Your task to perform on an android device: open app "Google Keep" (install if not already installed) Image 0: 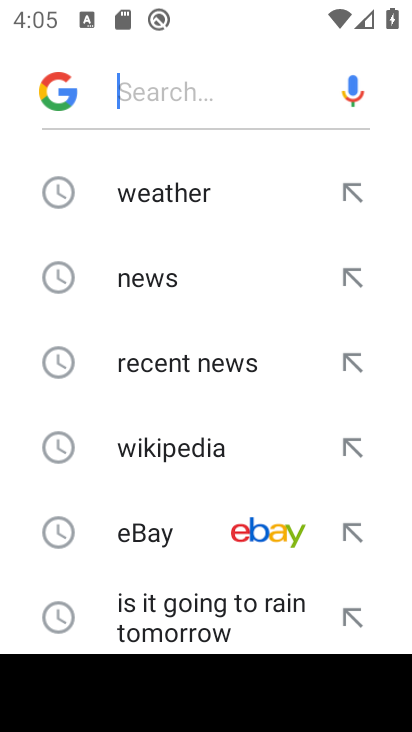
Step 0: press home button
Your task to perform on an android device: open app "Google Keep" (install if not already installed) Image 1: 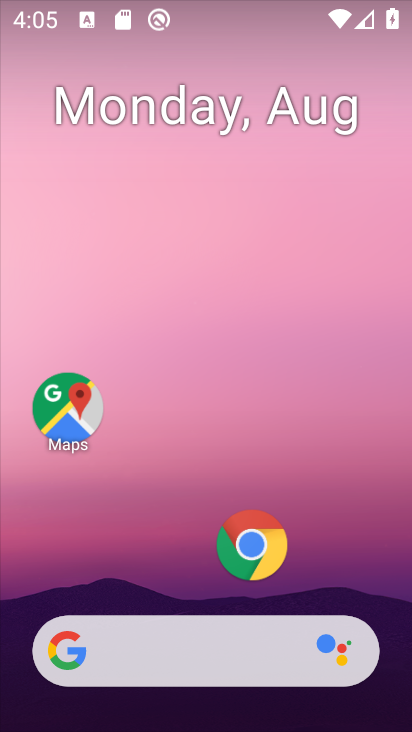
Step 1: drag from (130, 561) to (218, 18)
Your task to perform on an android device: open app "Google Keep" (install if not already installed) Image 2: 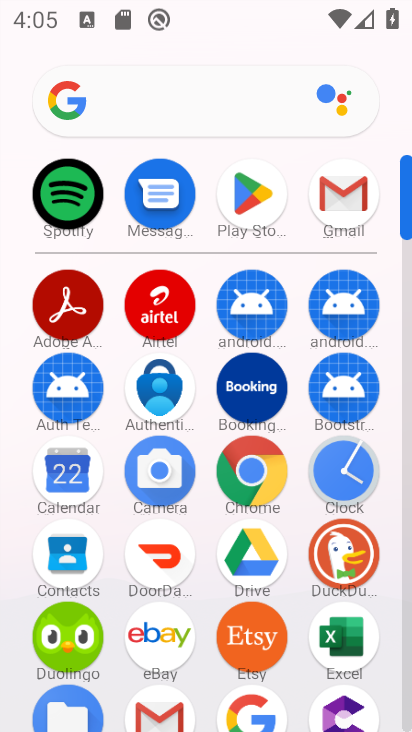
Step 2: click (252, 193)
Your task to perform on an android device: open app "Google Keep" (install if not already installed) Image 3: 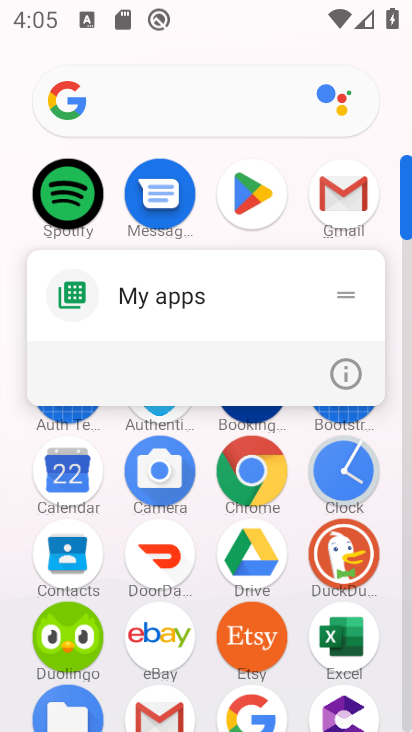
Step 3: click (252, 195)
Your task to perform on an android device: open app "Google Keep" (install if not already installed) Image 4: 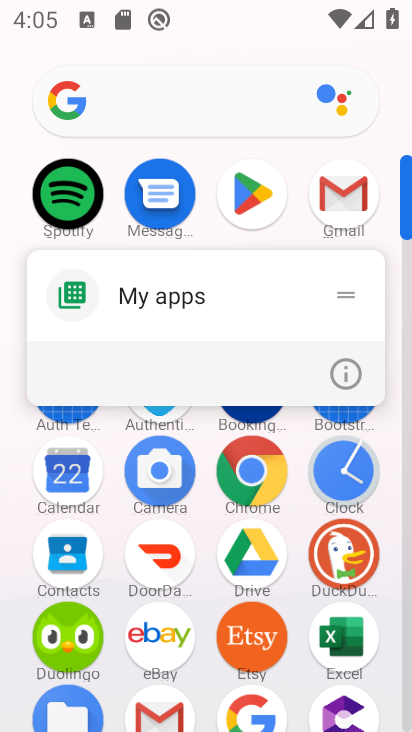
Step 4: click (254, 195)
Your task to perform on an android device: open app "Google Keep" (install if not already installed) Image 5: 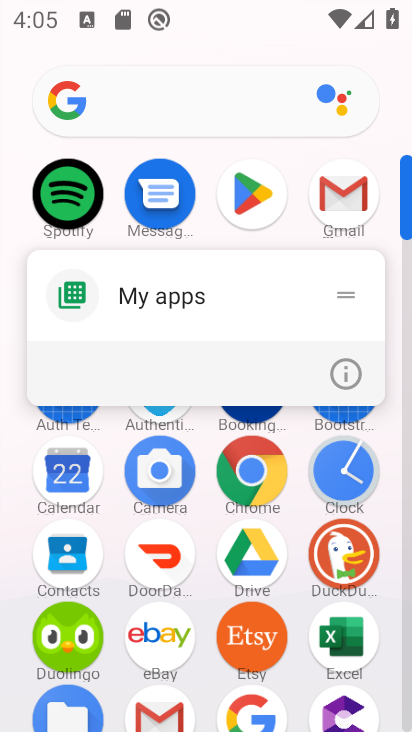
Step 5: click (253, 188)
Your task to perform on an android device: open app "Google Keep" (install if not already installed) Image 6: 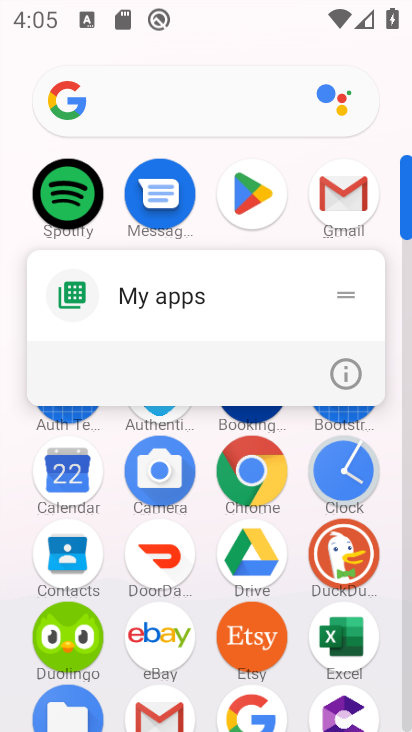
Step 6: click (254, 198)
Your task to perform on an android device: open app "Google Keep" (install if not already installed) Image 7: 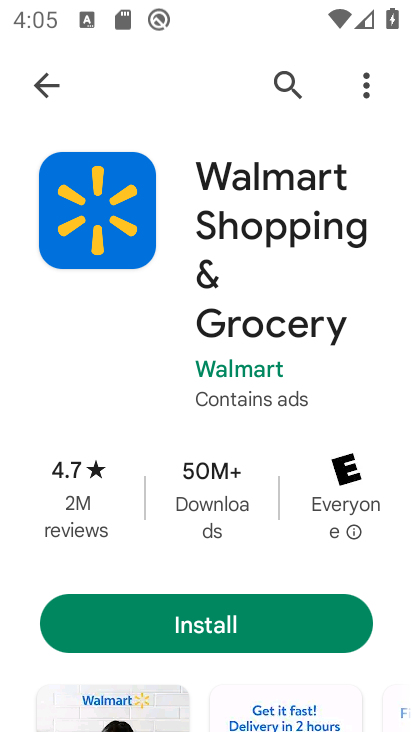
Step 7: click (275, 100)
Your task to perform on an android device: open app "Google Keep" (install if not already installed) Image 8: 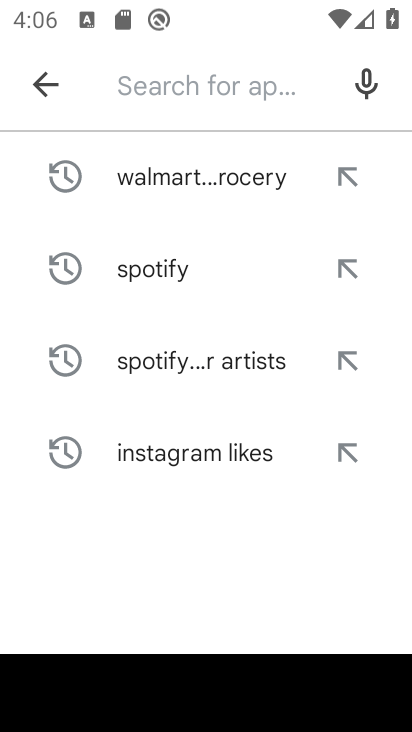
Step 8: click (189, 71)
Your task to perform on an android device: open app "Google Keep" (install if not already installed) Image 9: 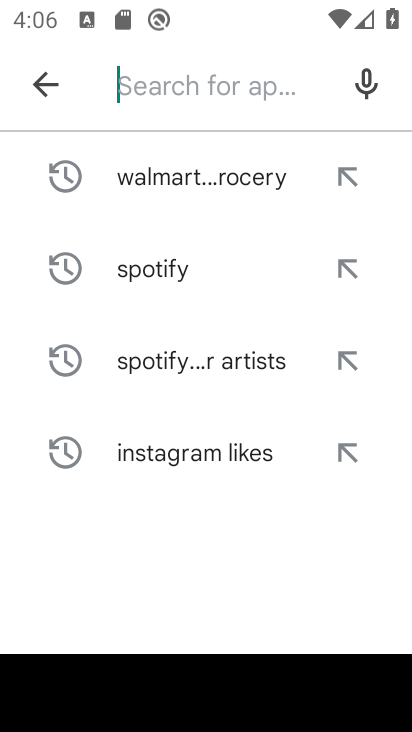
Step 9: click (265, 572)
Your task to perform on an android device: open app "Google Keep" (install if not already installed) Image 10: 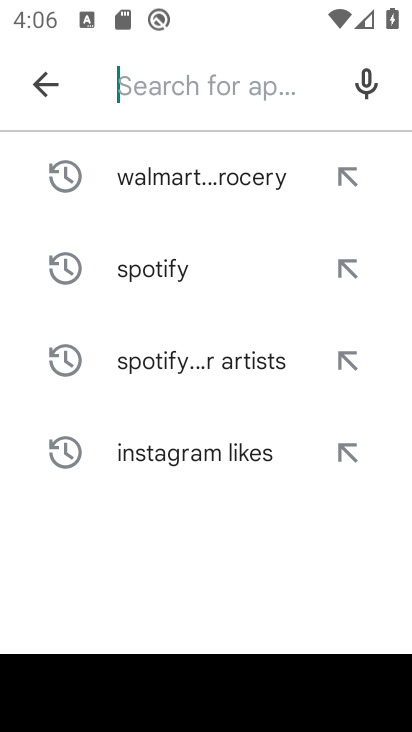
Step 10: type "Google Keep"
Your task to perform on an android device: open app "Google Keep" (install if not already installed) Image 11: 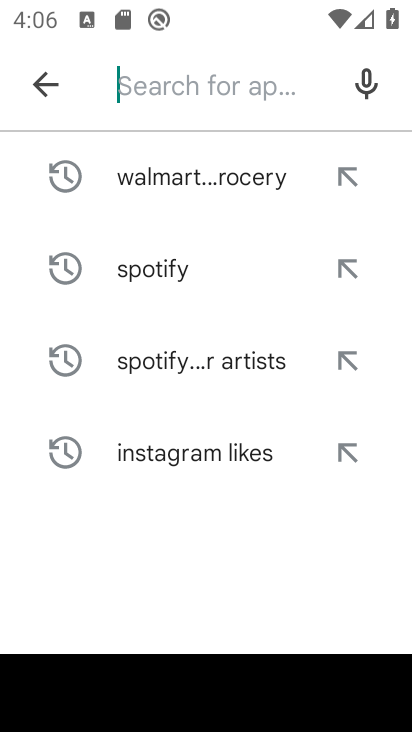
Step 11: click (265, 572)
Your task to perform on an android device: open app "Google Keep" (install if not already installed) Image 12: 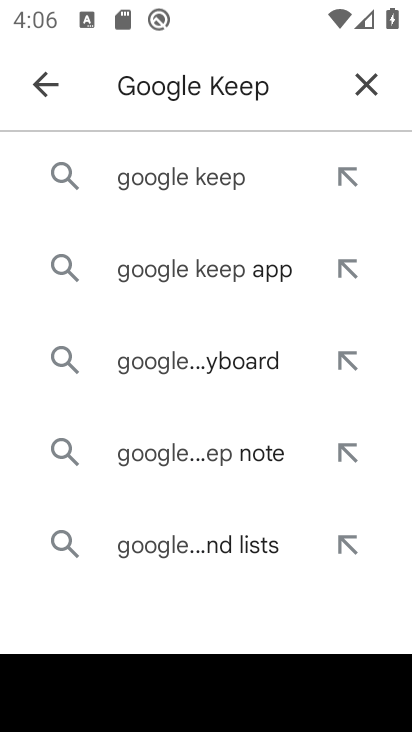
Step 12: click (196, 194)
Your task to perform on an android device: open app "Google Keep" (install if not already installed) Image 13: 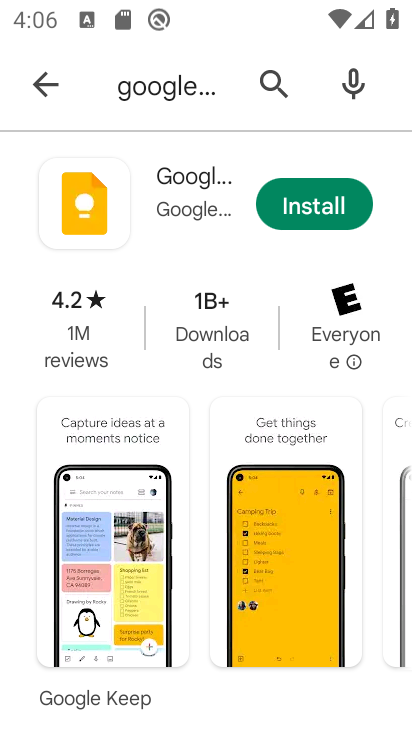
Step 13: click (348, 215)
Your task to perform on an android device: open app "Google Keep" (install if not already installed) Image 14: 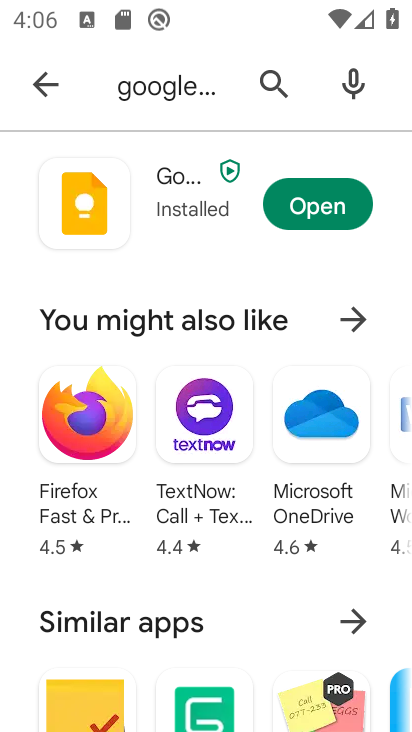
Step 14: click (319, 199)
Your task to perform on an android device: open app "Google Keep" (install if not already installed) Image 15: 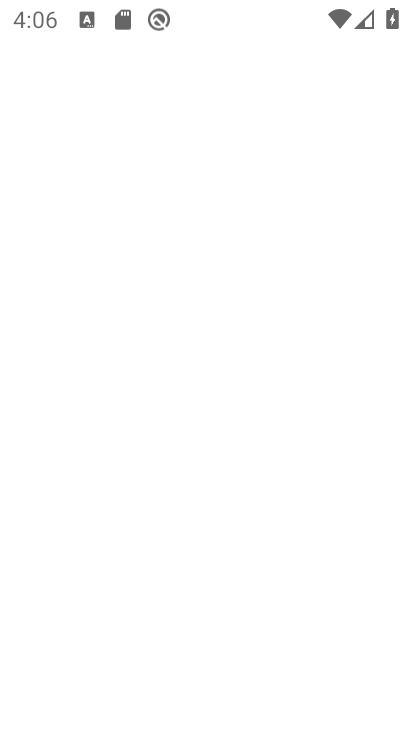
Step 15: task complete